Your task to perform on an android device: Open Google Chrome and open the bookmarks view Image 0: 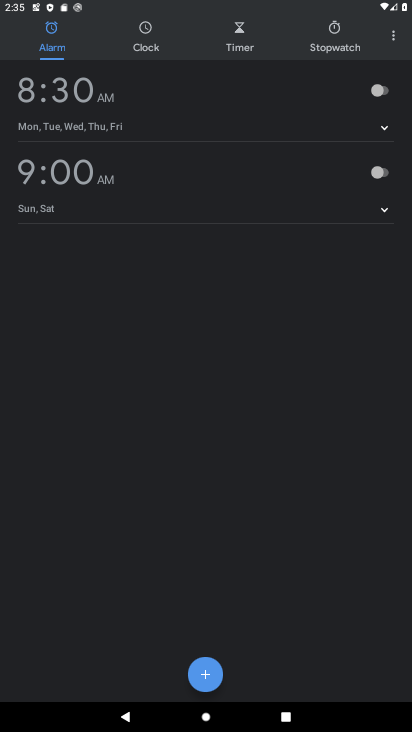
Step 0: press home button
Your task to perform on an android device: Open Google Chrome and open the bookmarks view Image 1: 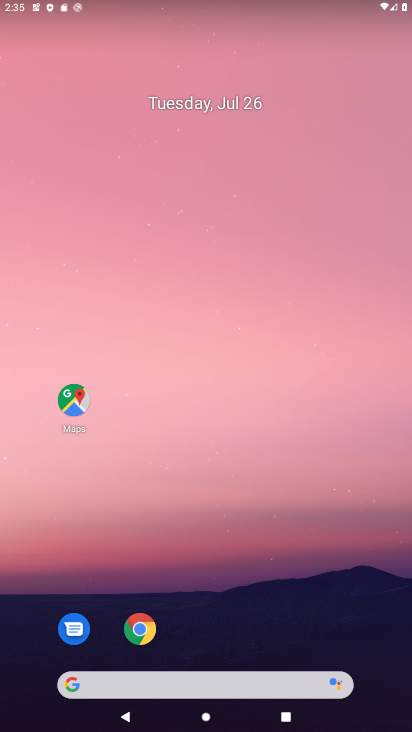
Step 1: click (128, 629)
Your task to perform on an android device: Open Google Chrome and open the bookmarks view Image 2: 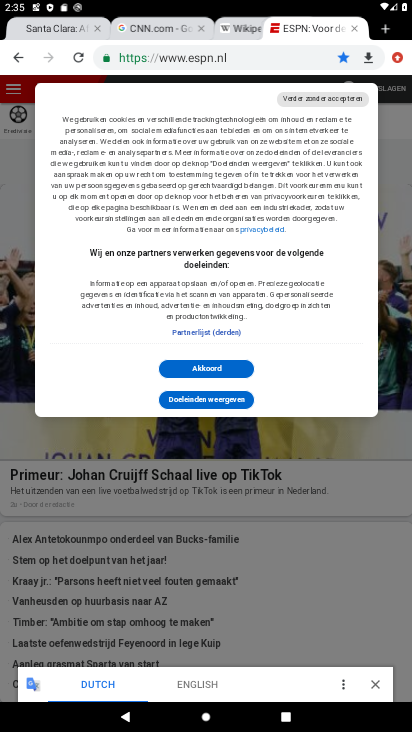
Step 2: click (394, 57)
Your task to perform on an android device: Open Google Chrome and open the bookmarks view Image 3: 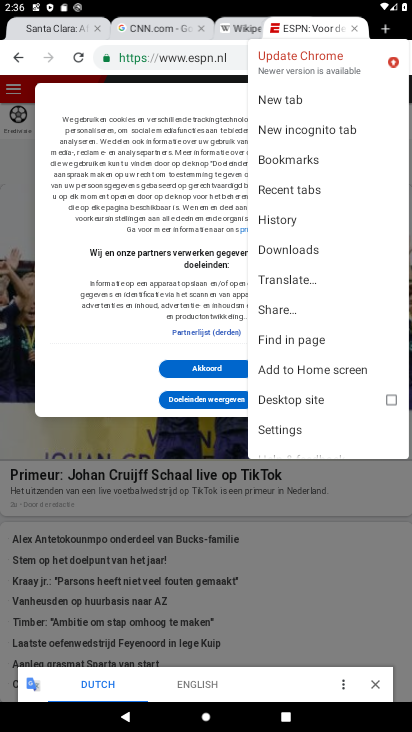
Step 3: click (318, 160)
Your task to perform on an android device: Open Google Chrome and open the bookmarks view Image 4: 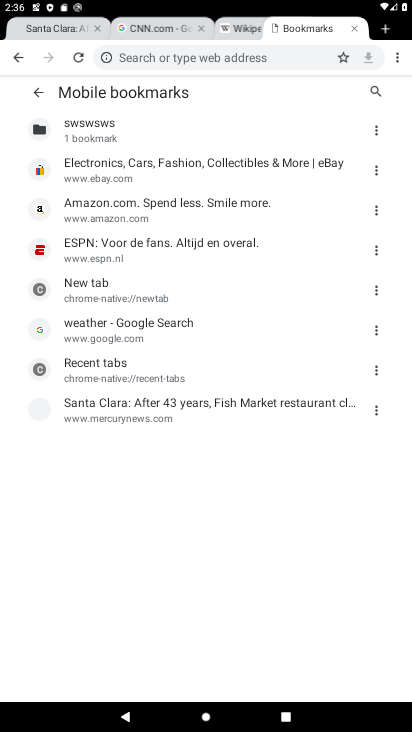
Step 4: task complete